Your task to perform on an android device: turn notification dots on Image 0: 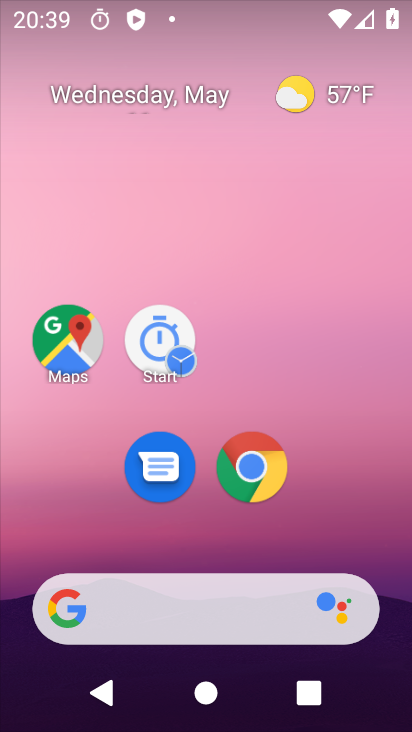
Step 0: drag from (365, 545) to (153, 83)
Your task to perform on an android device: turn notification dots on Image 1: 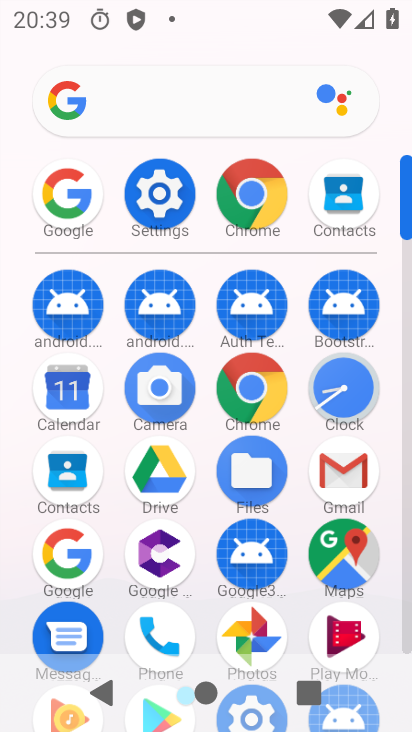
Step 1: click (170, 195)
Your task to perform on an android device: turn notification dots on Image 2: 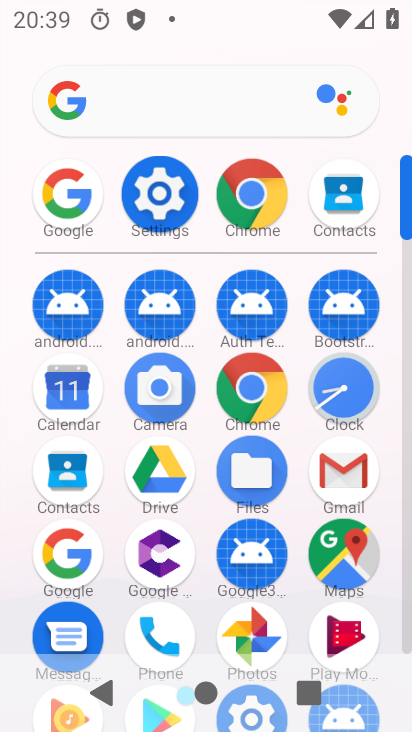
Step 2: click (171, 193)
Your task to perform on an android device: turn notification dots on Image 3: 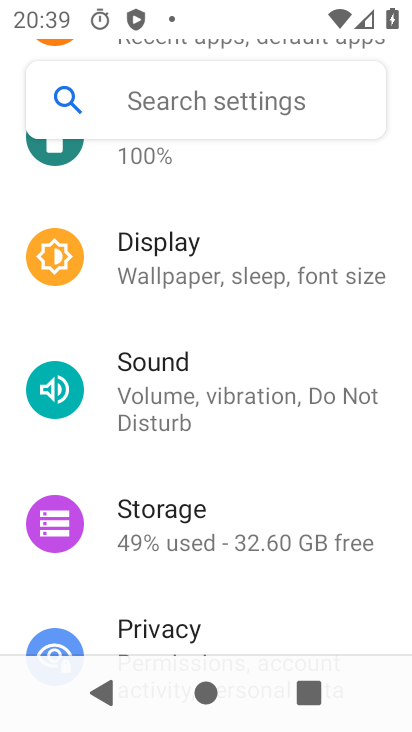
Step 3: drag from (177, 242) to (197, 525)
Your task to perform on an android device: turn notification dots on Image 4: 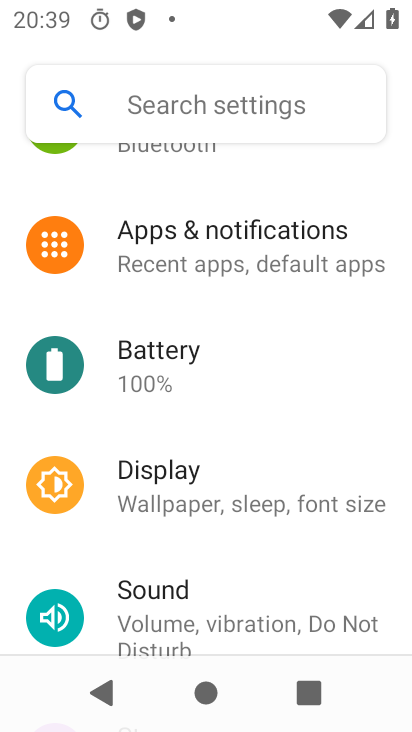
Step 4: drag from (203, 310) to (252, 665)
Your task to perform on an android device: turn notification dots on Image 5: 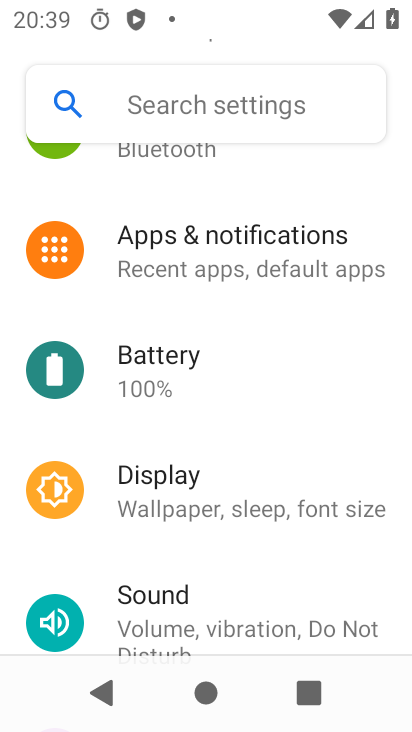
Step 5: drag from (222, 241) to (237, 609)
Your task to perform on an android device: turn notification dots on Image 6: 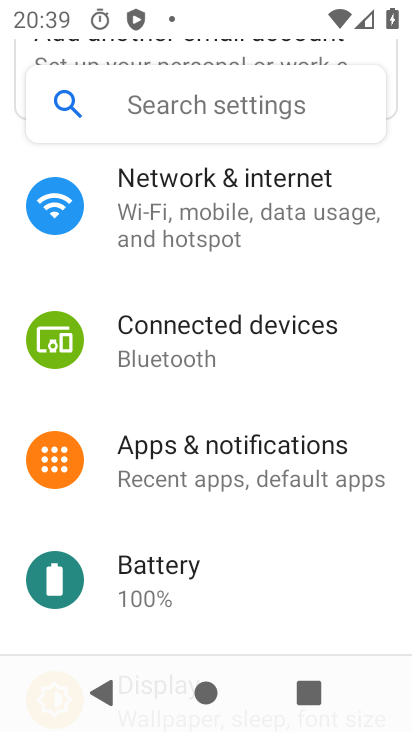
Step 6: drag from (222, 264) to (248, 552)
Your task to perform on an android device: turn notification dots on Image 7: 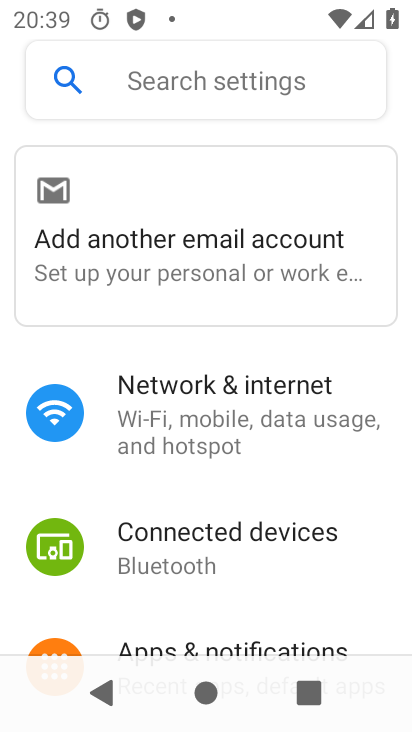
Step 7: drag from (245, 551) to (213, 323)
Your task to perform on an android device: turn notification dots on Image 8: 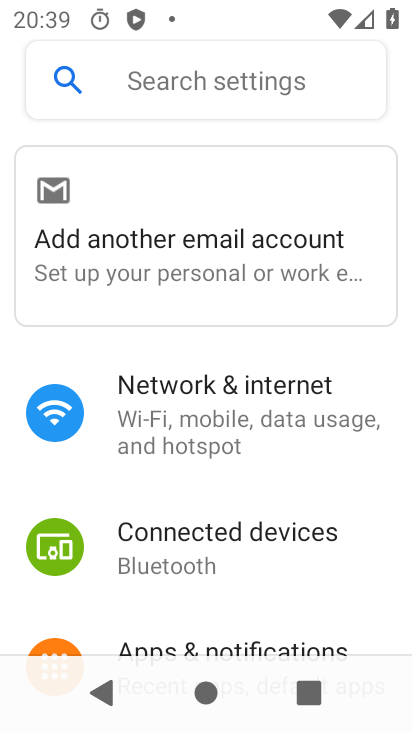
Step 8: drag from (245, 423) to (257, 269)
Your task to perform on an android device: turn notification dots on Image 9: 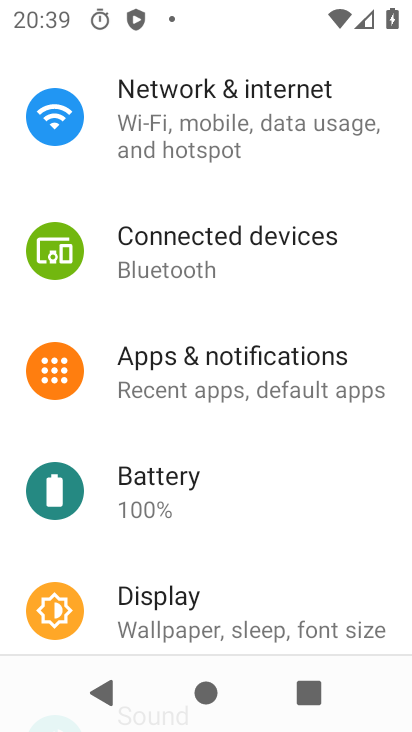
Step 9: click (231, 379)
Your task to perform on an android device: turn notification dots on Image 10: 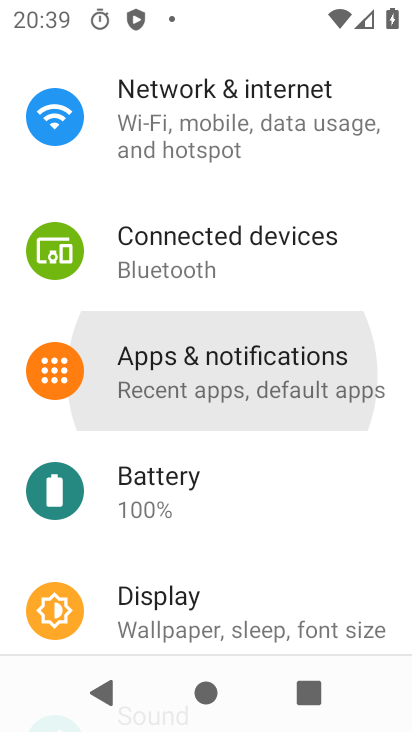
Step 10: click (231, 378)
Your task to perform on an android device: turn notification dots on Image 11: 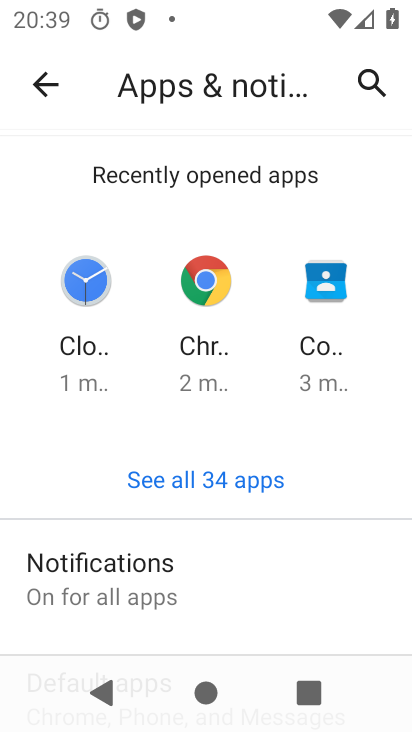
Step 11: drag from (164, 533) to (168, 134)
Your task to perform on an android device: turn notification dots on Image 12: 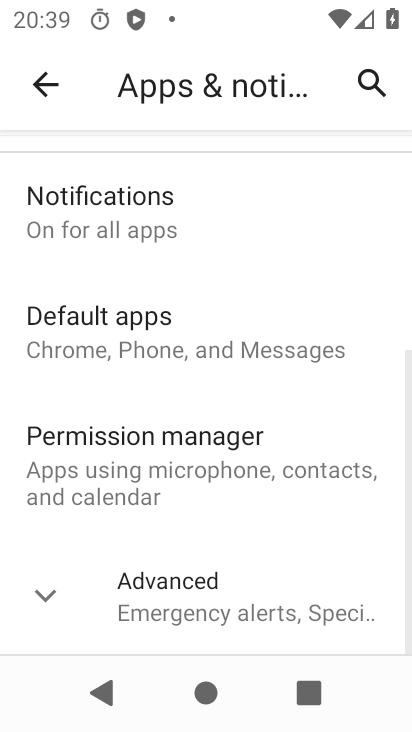
Step 12: drag from (225, 528) to (231, 111)
Your task to perform on an android device: turn notification dots on Image 13: 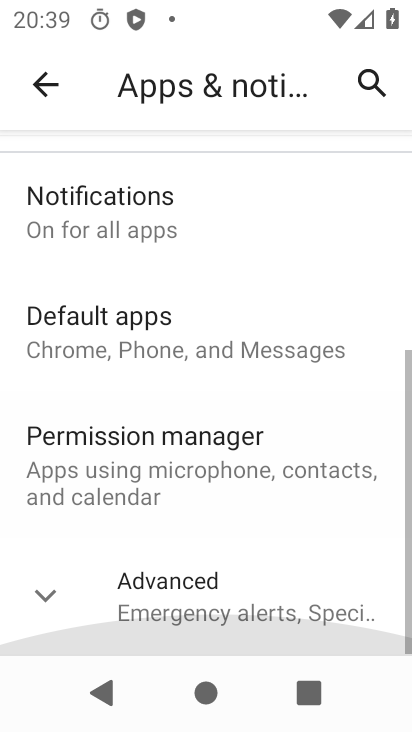
Step 13: drag from (268, 518) to (259, 181)
Your task to perform on an android device: turn notification dots on Image 14: 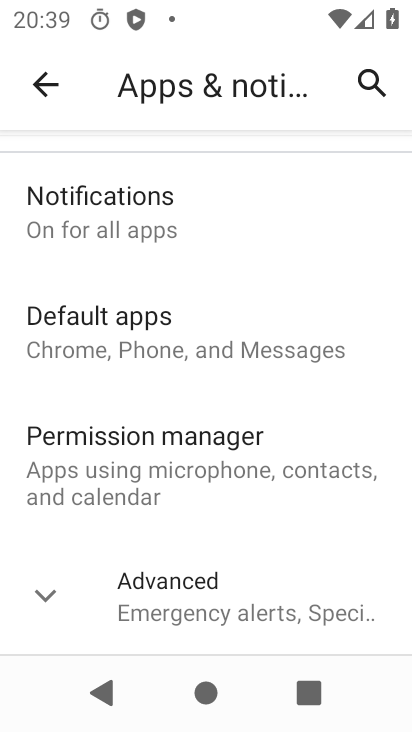
Step 14: click (90, 225)
Your task to perform on an android device: turn notification dots on Image 15: 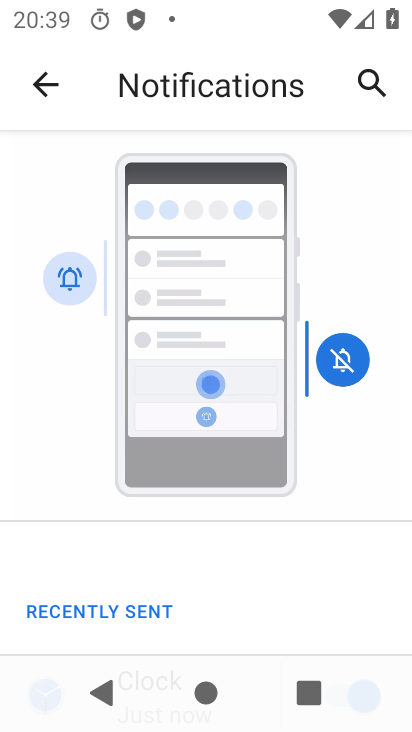
Step 15: drag from (212, 524) to (212, 219)
Your task to perform on an android device: turn notification dots on Image 16: 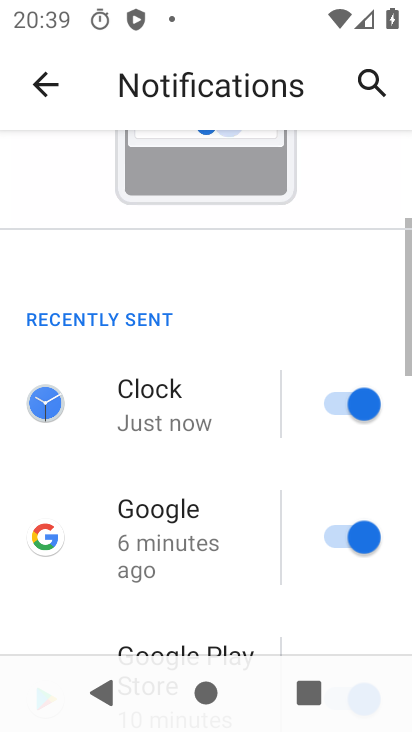
Step 16: drag from (237, 481) to (237, 188)
Your task to perform on an android device: turn notification dots on Image 17: 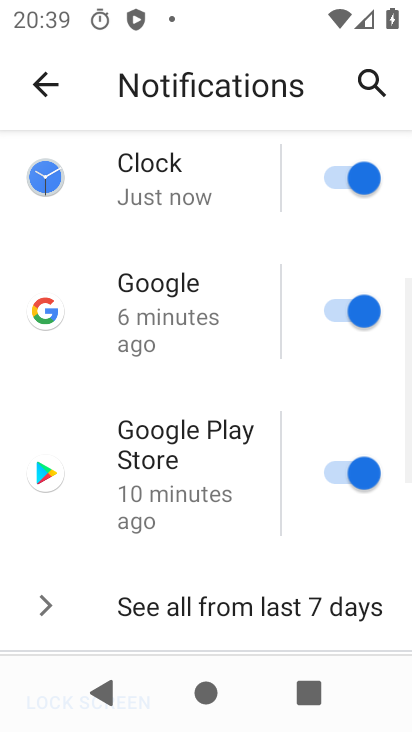
Step 17: drag from (224, 497) to (195, 178)
Your task to perform on an android device: turn notification dots on Image 18: 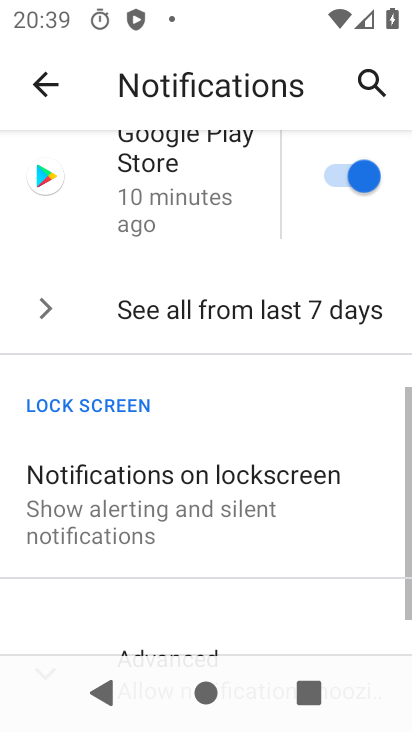
Step 18: drag from (234, 346) to (210, 206)
Your task to perform on an android device: turn notification dots on Image 19: 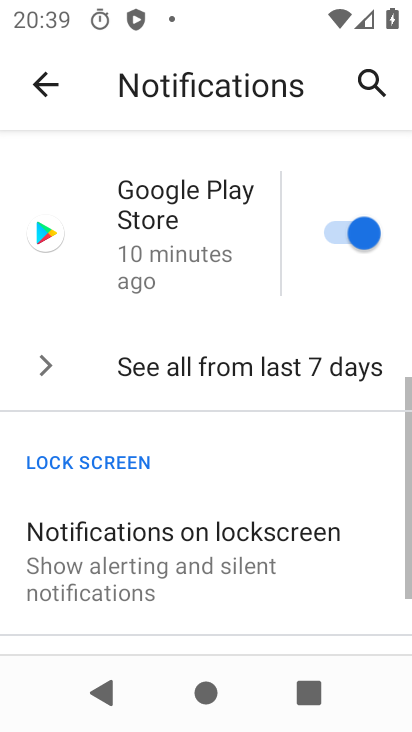
Step 19: drag from (246, 532) to (243, 250)
Your task to perform on an android device: turn notification dots on Image 20: 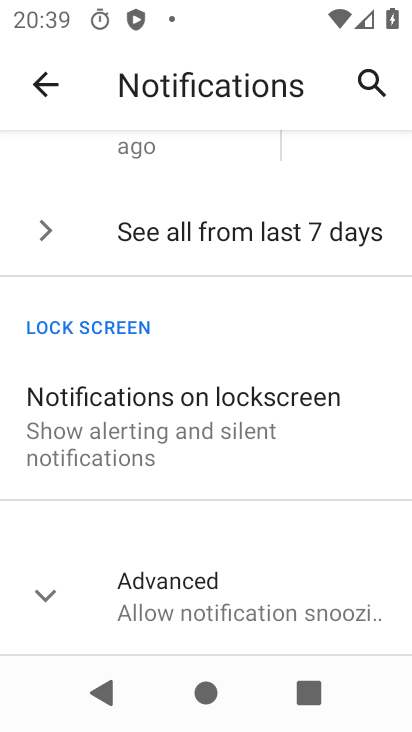
Step 20: drag from (262, 519) to (286, 259)
Your task to perform on an android device: turn notification dots on Image 21: 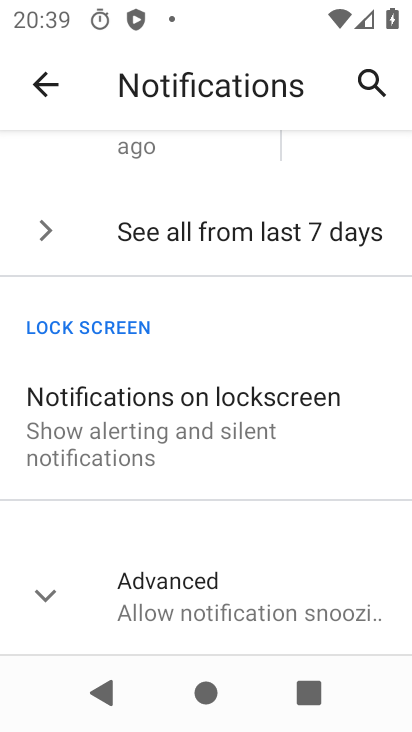
Step 21: click (195, 606)
Your task to perform on an android device: turn notification dots on Image 22: 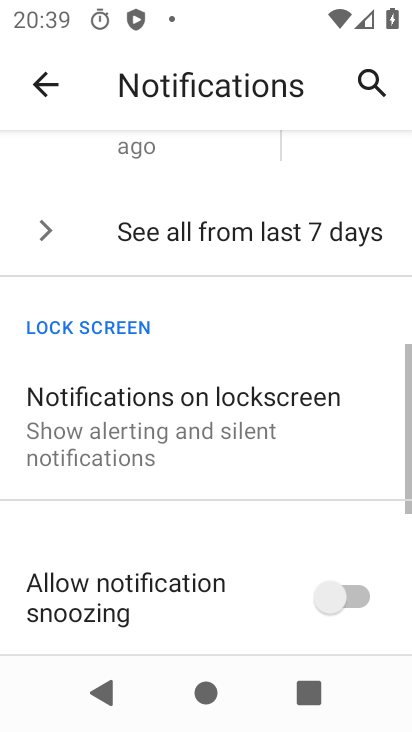
Step 22: drag from (189, 586) to (182, 186)
Your task to perform on an android device: turn notification dots on Image 23: 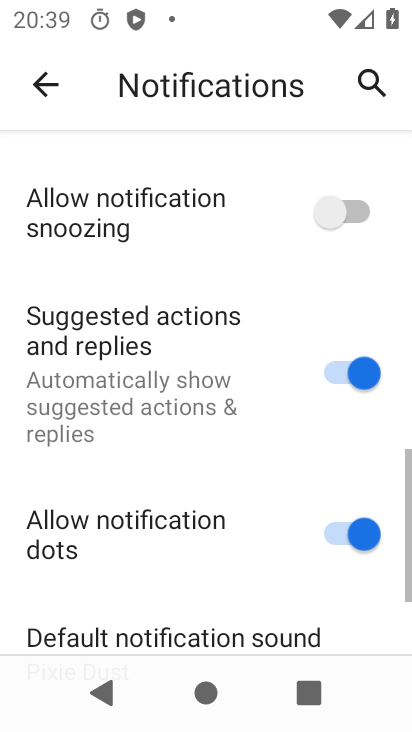
Step 23: drag from (246, 512) to (352, 31)
Your task to perform on an android device: turn notification dots on Image 24: 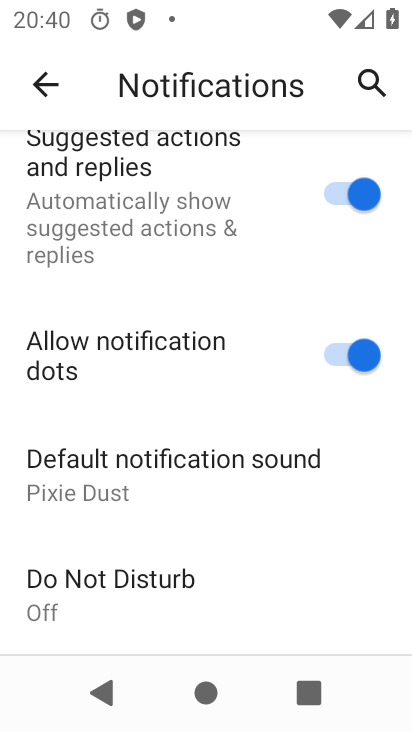
Step 24: click (361, 358)
Your task to perform on an android device: turn notification dots on Image 25: 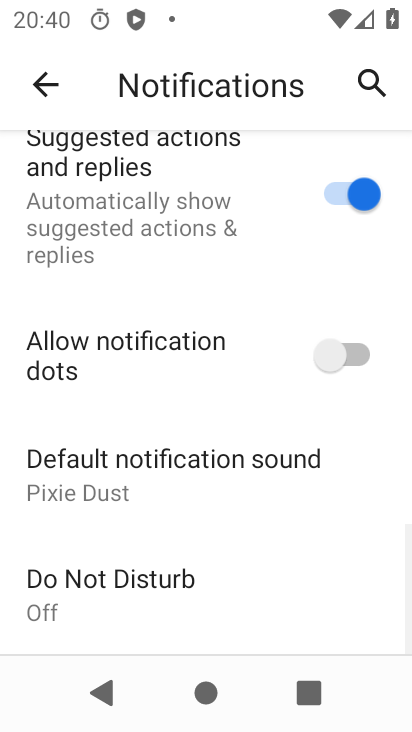
Step 25: task complete